Your task to perform on an android device: Open Chrome and go to settings Image 0: 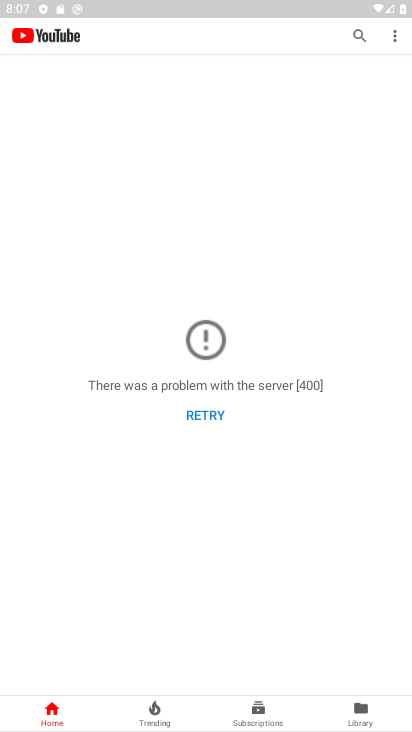
Step 0: press home button
Your task to perform on an android device: Open Chrome and go to settings Image 1: 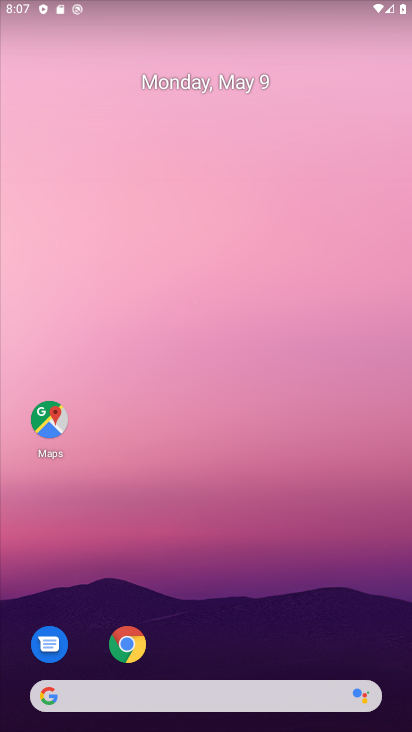
Step 1: click (111, 656)
Your task to perform on an android device: Open Chrome and go to settings Image 2: 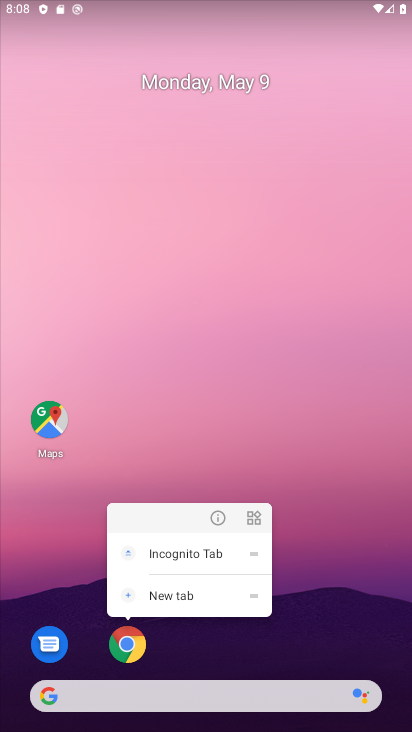
Step 2: click (147, 658)
Your task to perform on an android device: Open Chrome and go to settings Image 3: 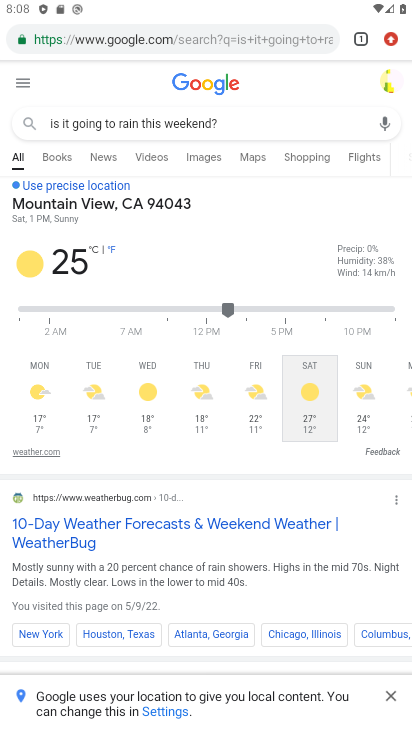
Step 3: task complete